Your task to perform on an android device: Search for Italian restaurants on Maps Image 0: 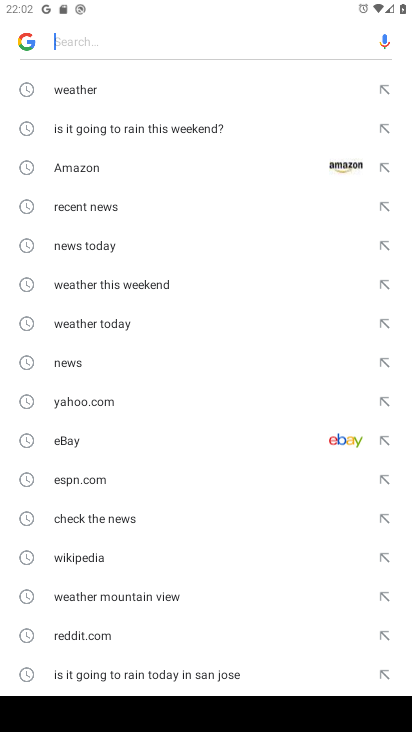
Step 0: press home button
Your task to perform on an android device: Search for Italian restaurants on Maps Image 1: 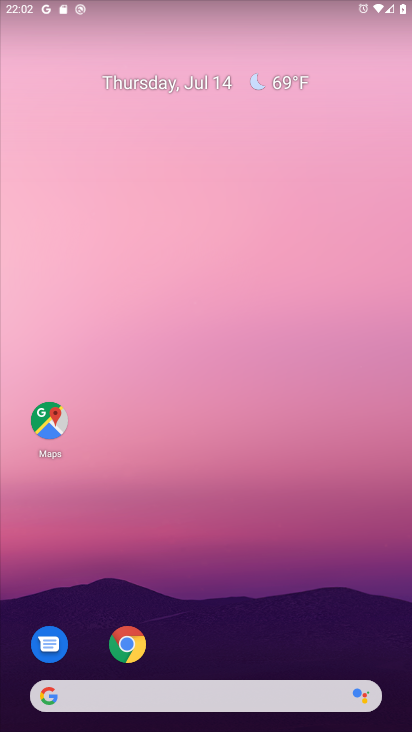
Step 1: click (52, 436)
Your task to perform on an android device: Search for Italian restaurants on Maps Image 2: 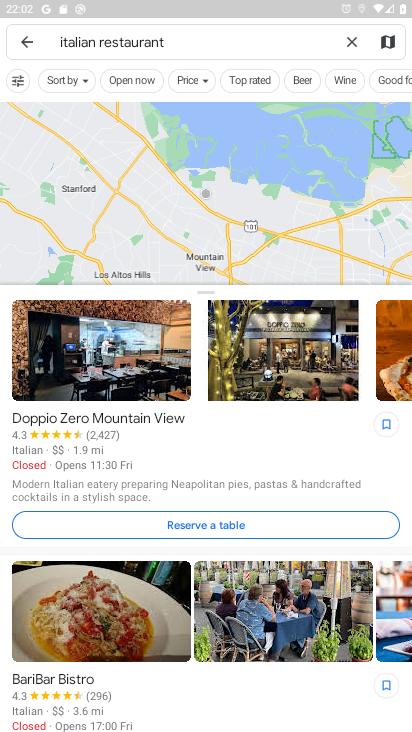
Step 2: task complete